Your task to perform on an android device: Open Wikipedia Image 0: 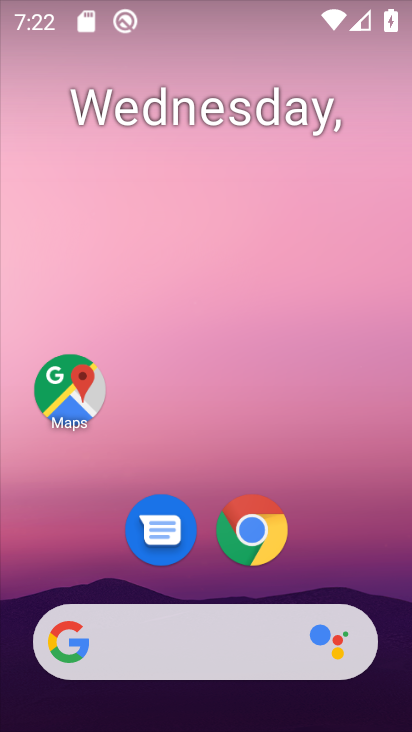
Step 0: drag from (385, 633) to (309, 68)
Your task to perform on an android device: Open Wikipedia Image 1: 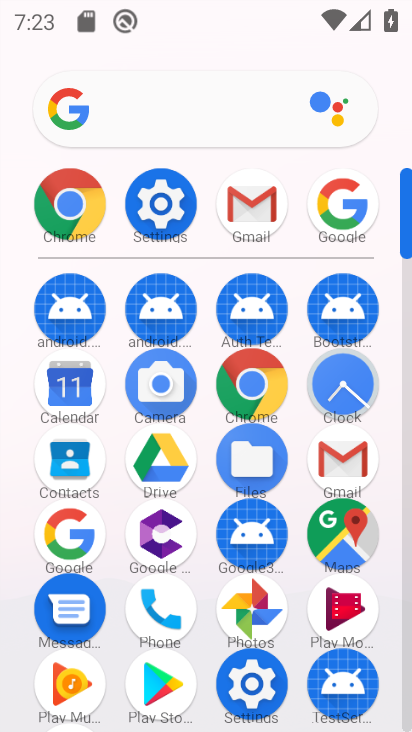
Step 1: click (260, 386)
Your task to perform on an android device: Open Wikipedia Image 2: 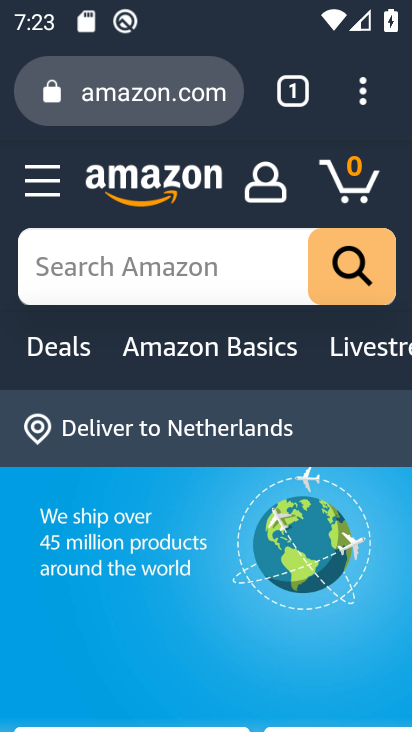
Step 2: press back button
Your task to perform on an android device: Open Wikipedia Image 3: 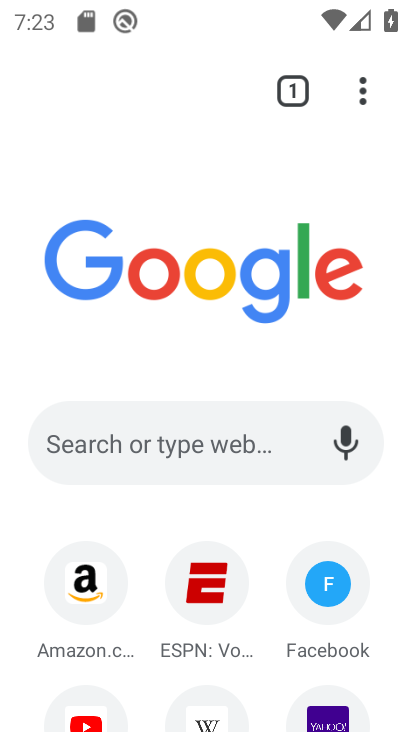
Step 3: click (211, 696)
Your task to perform on an android device: Open Wikipedia Image 4: 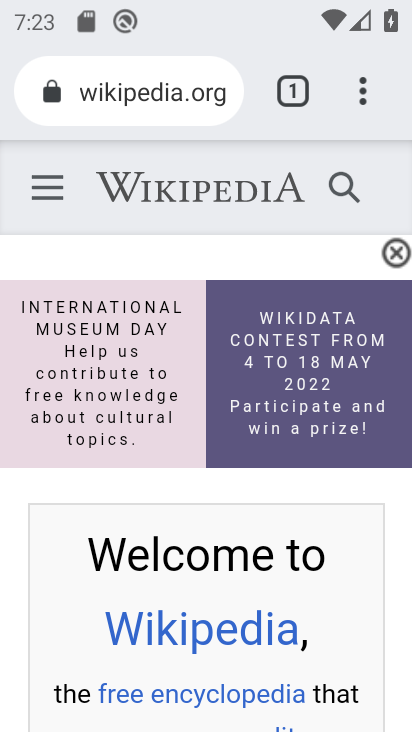
Step 4: task complete